Your task to perform on an android device: turn notification dots on Image 0: 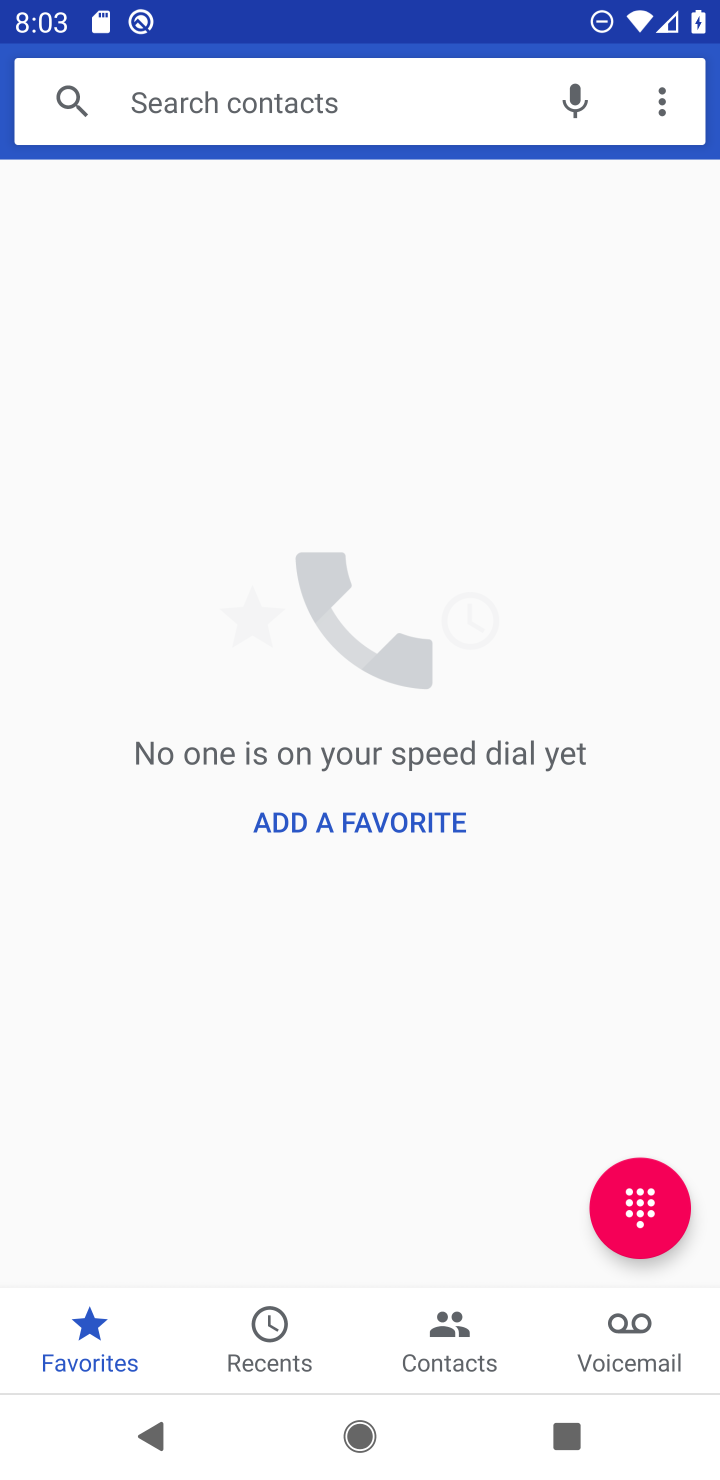
Step 0: press home button
Your task to perform on an android device: turn notification dots on Image 1: 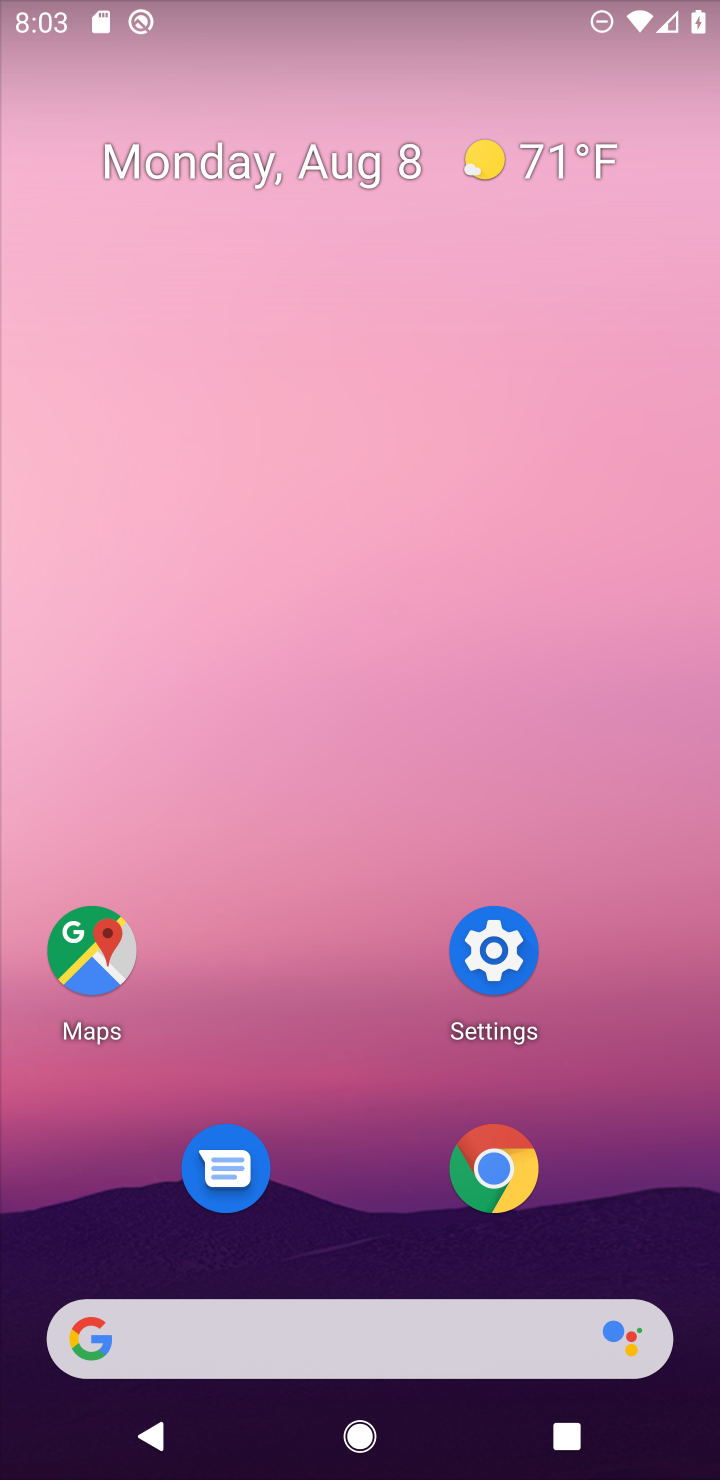
Step 1: click (500, 955)
Your task to perform on an android device: turn notification dots on Image 2: 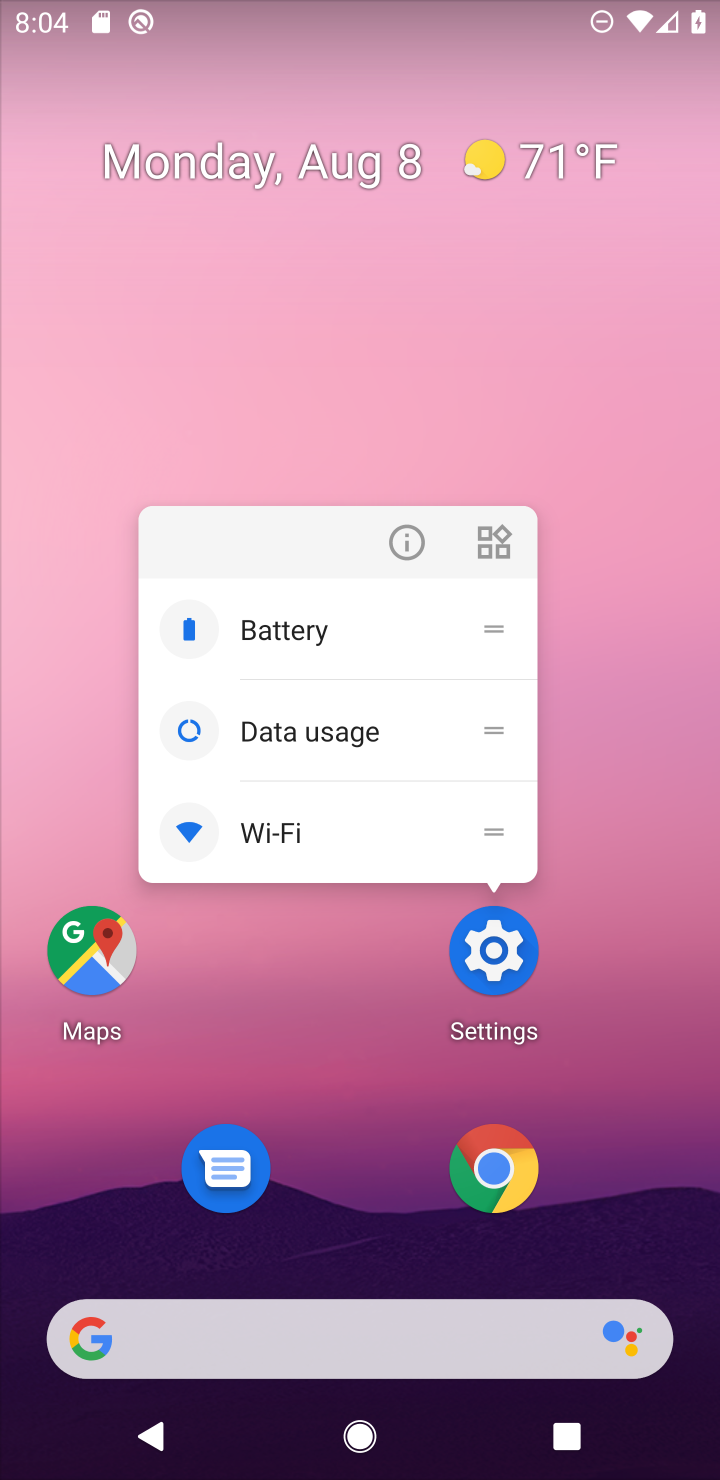
Step 2: click (500, 960)
Your task to perform on an android device: turn notification dots on Image 3: 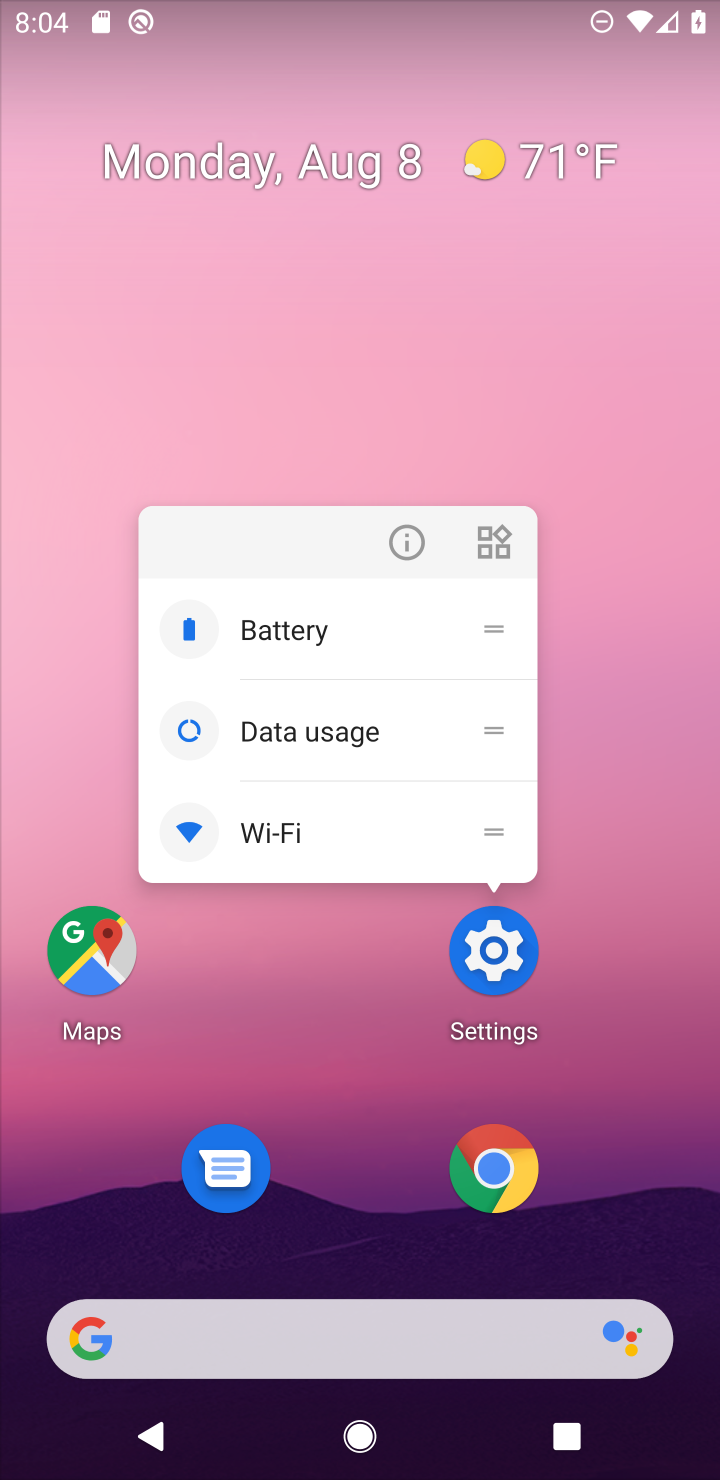
Step 3: click (494, 948)
Your task to perform on an android device: turn notification dots on Image 4: 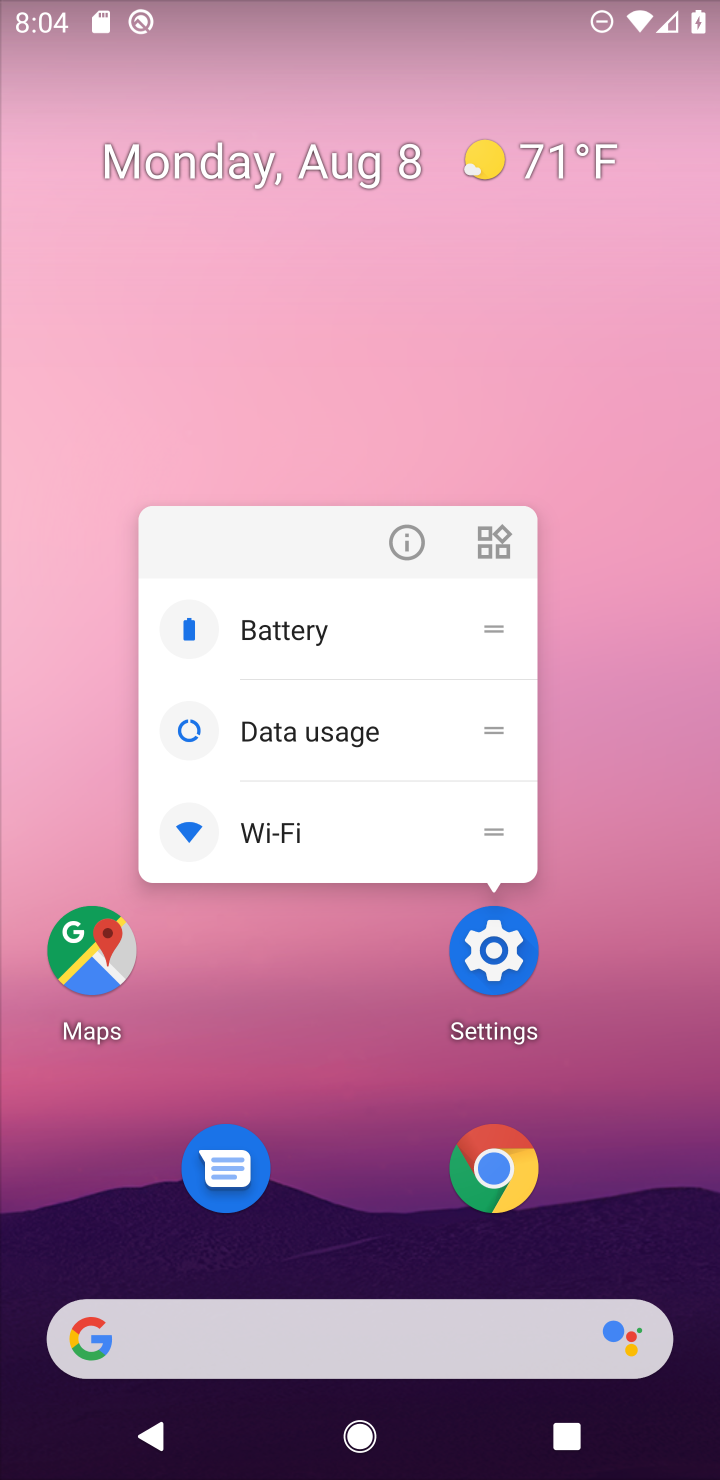
Step 4: click (494, 956)
Your task to perform on an android device: turn notification dots on Image 5: 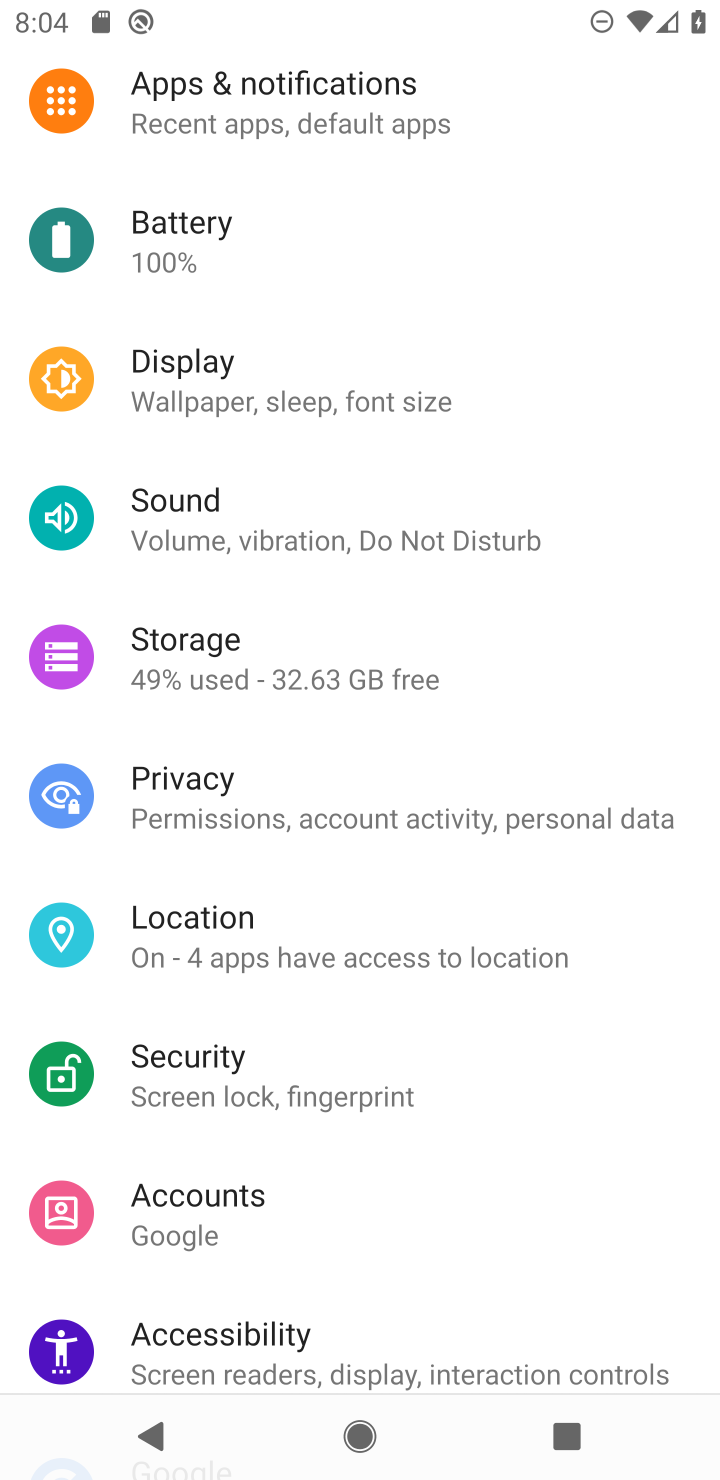
Step 5: click (334, 107)
Your task to perform on an android device: turn notification dots on Image 6: 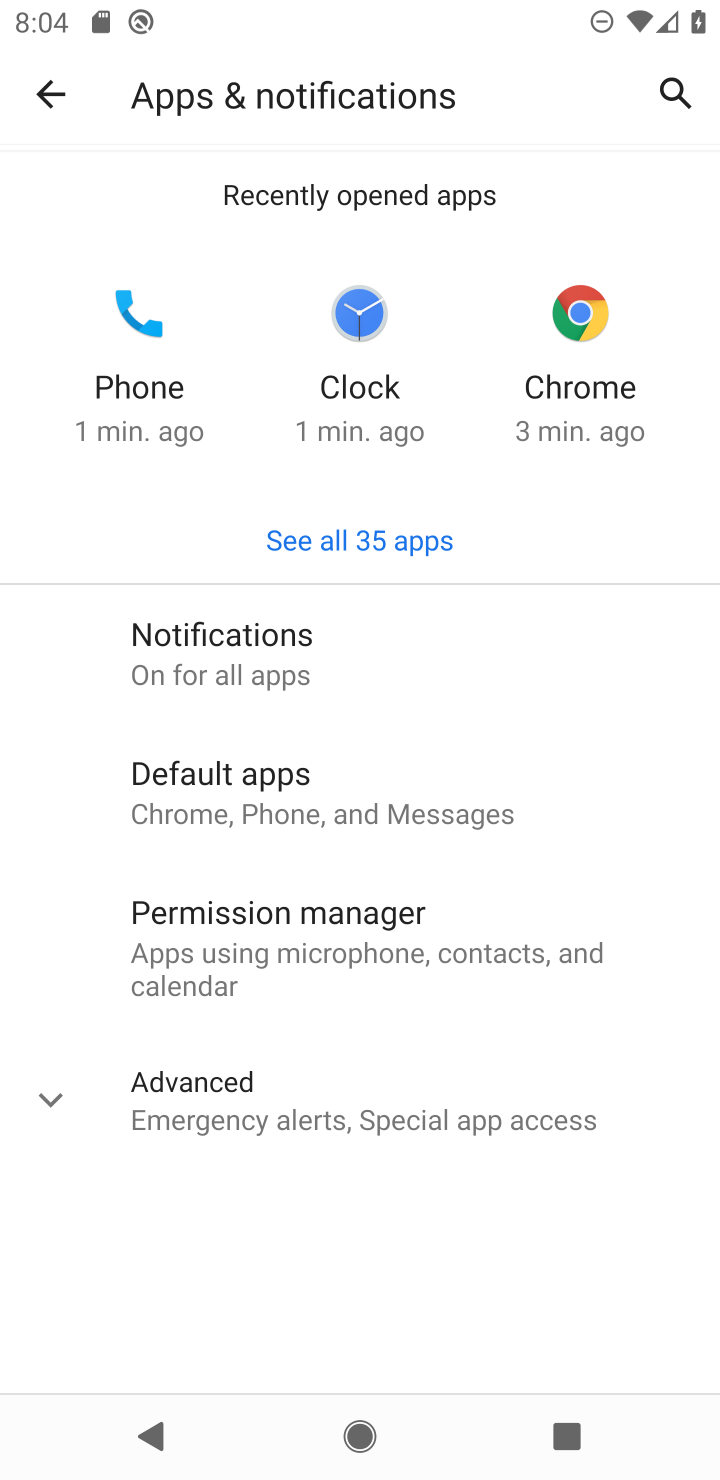
Step 6: click (248, 654)
Your task to perform on an android device: turn notification dots on Image 7: 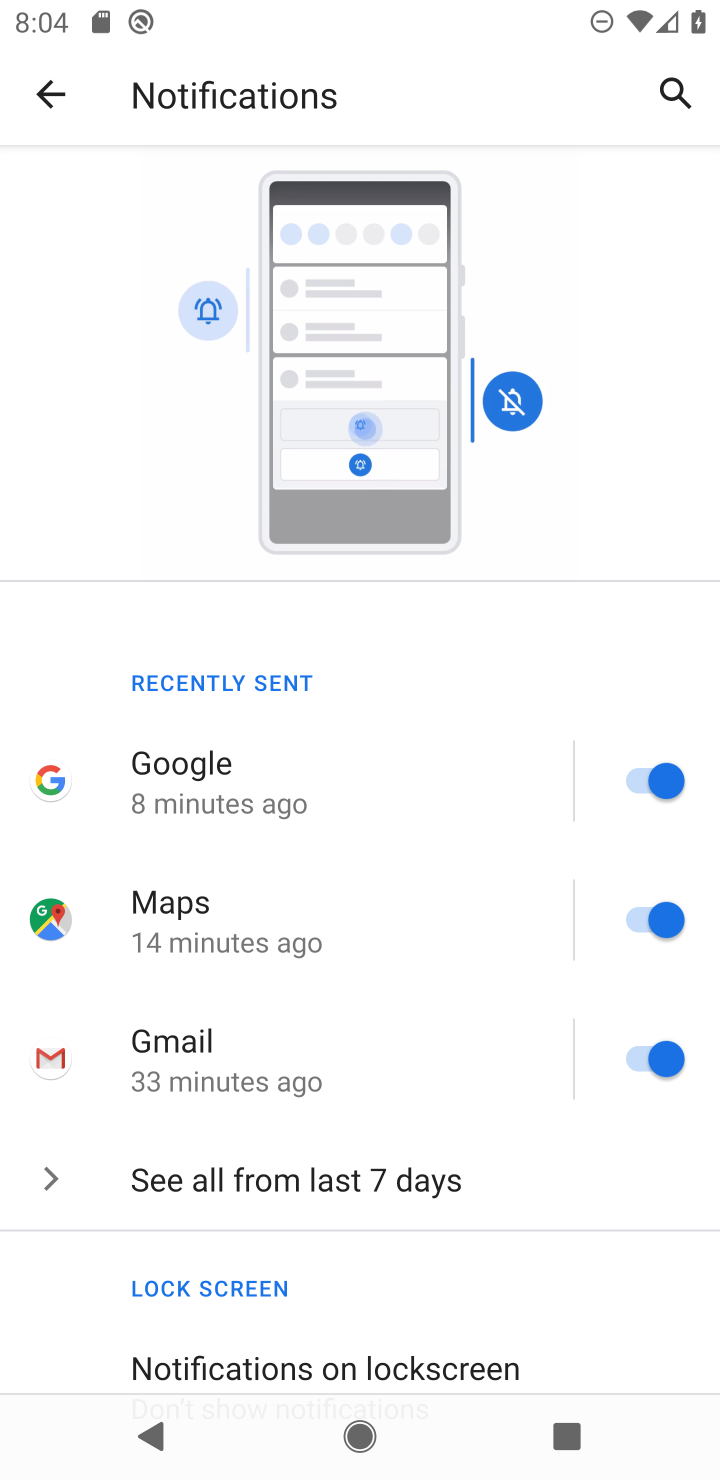
Step 7: drag from (442, 805) to (627, 127)
Your task to perform on an android device: turn notification dots on Image 8: 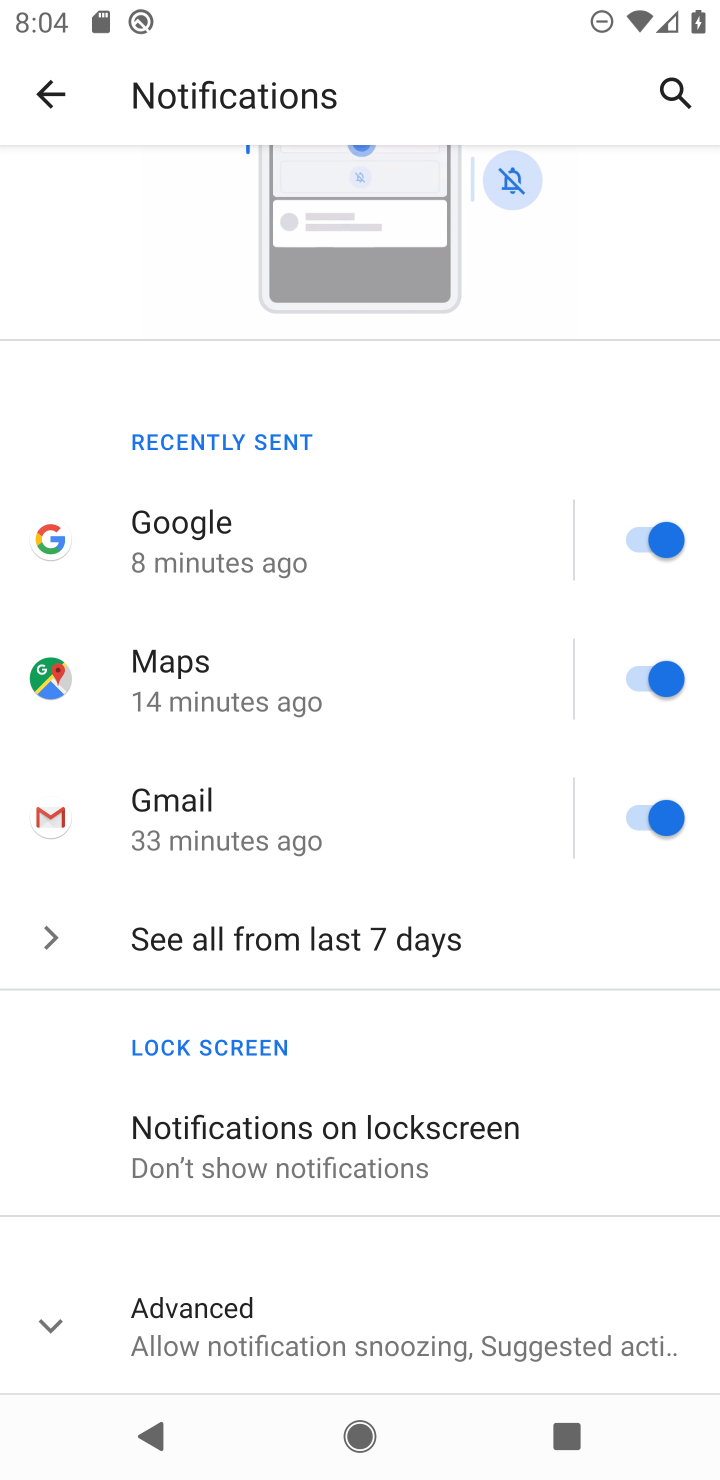
Step 8: drag from (418, 1209) to (609, 281)
Your task to perform on an android device: turn notification dots on Image 9: 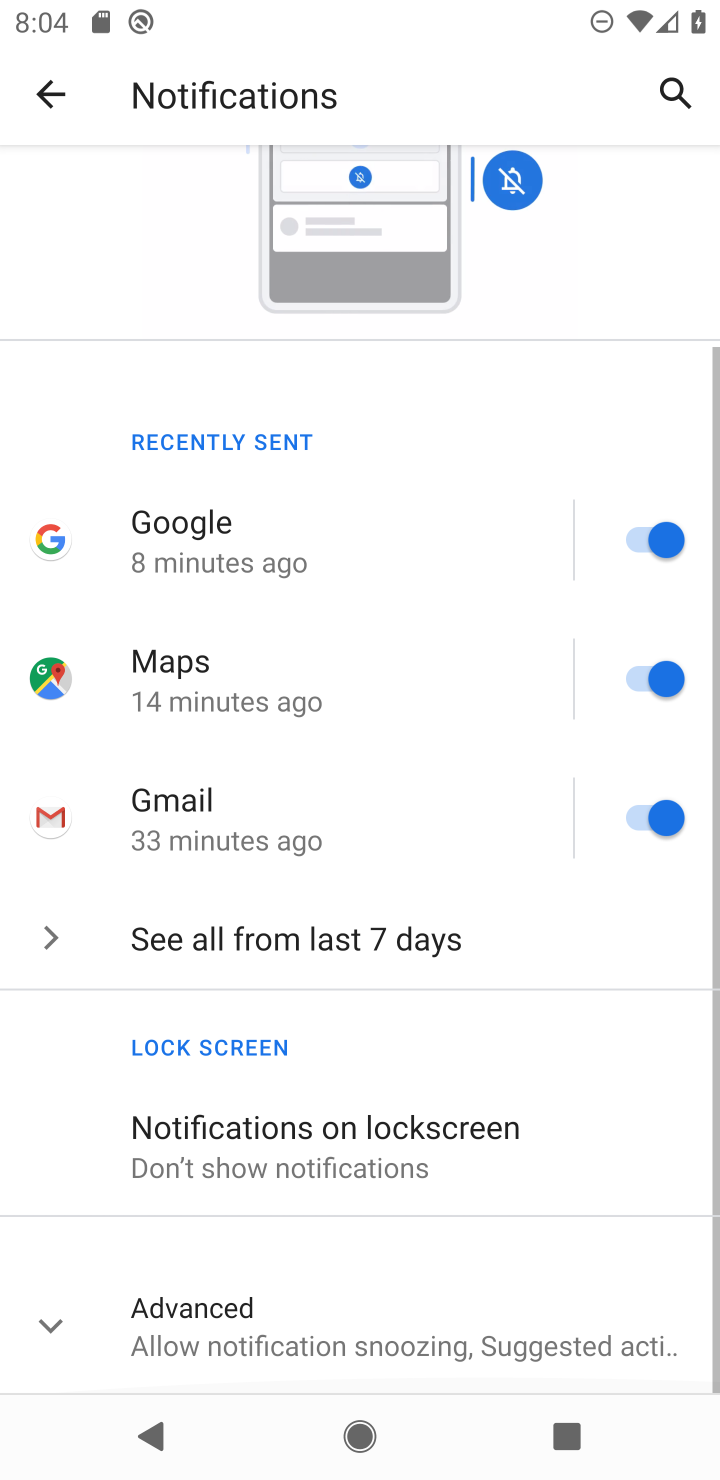
Step 9: click (168, 1317)
Your task to perform on an android device: turn notification dots on Image 10: 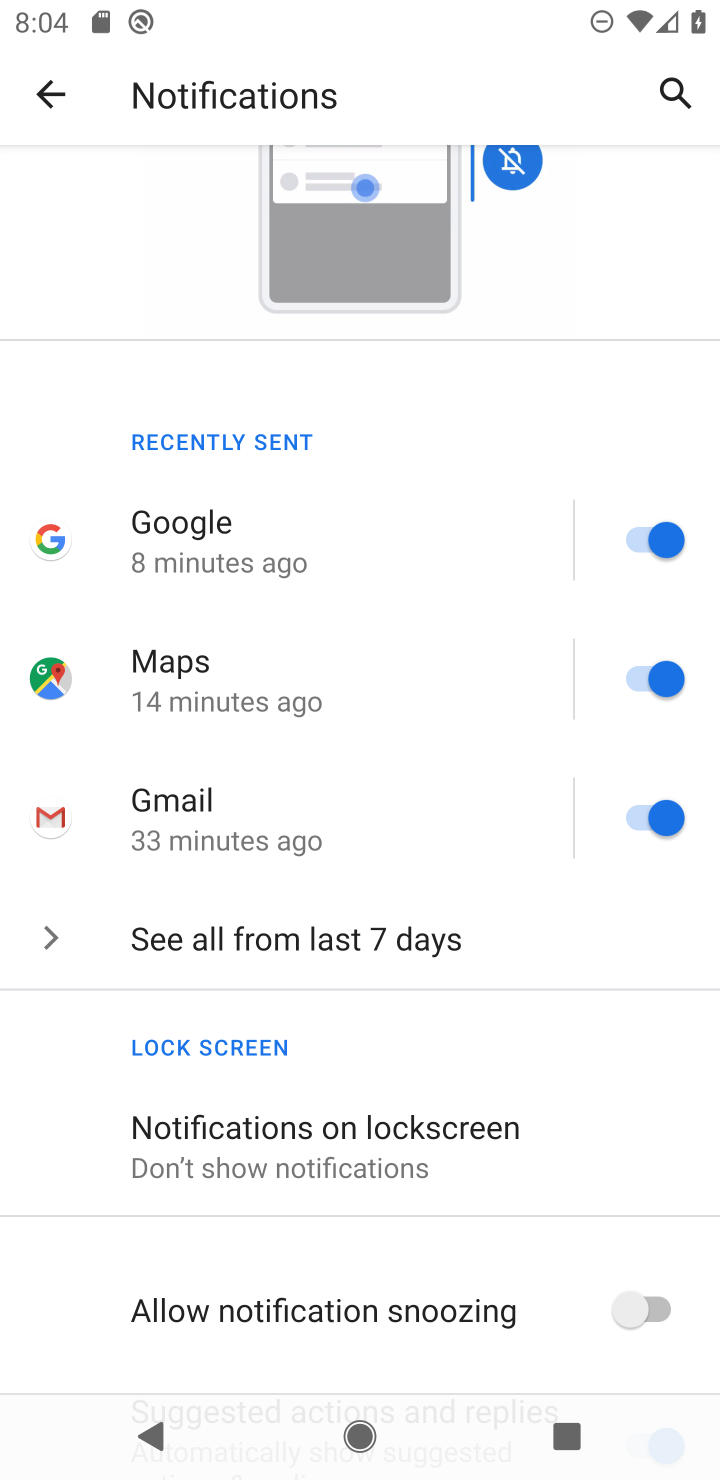
Step 10: task complete